Your task to perform on an android device: check storage Image 0: 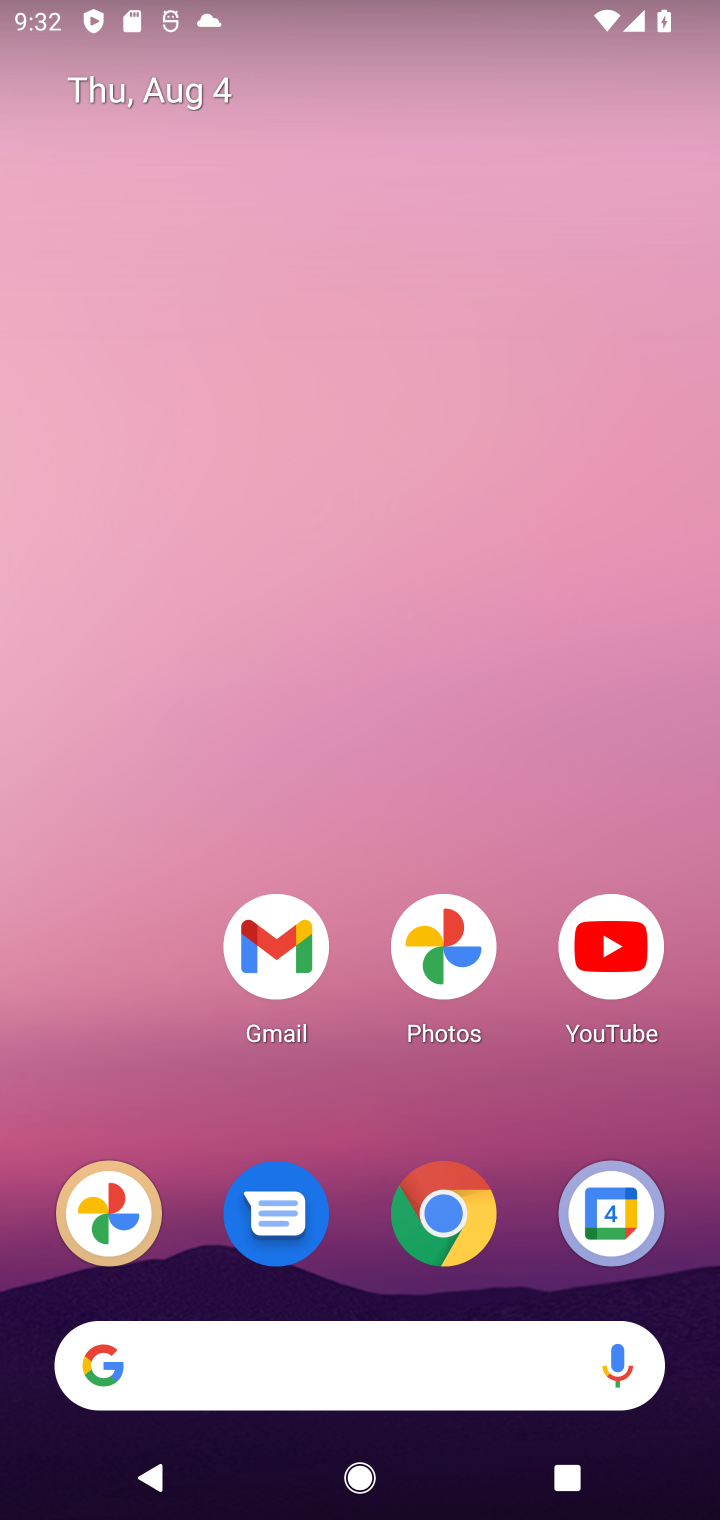
Step 0: press home button
Your task to perform on an android device: check storage Image 1: 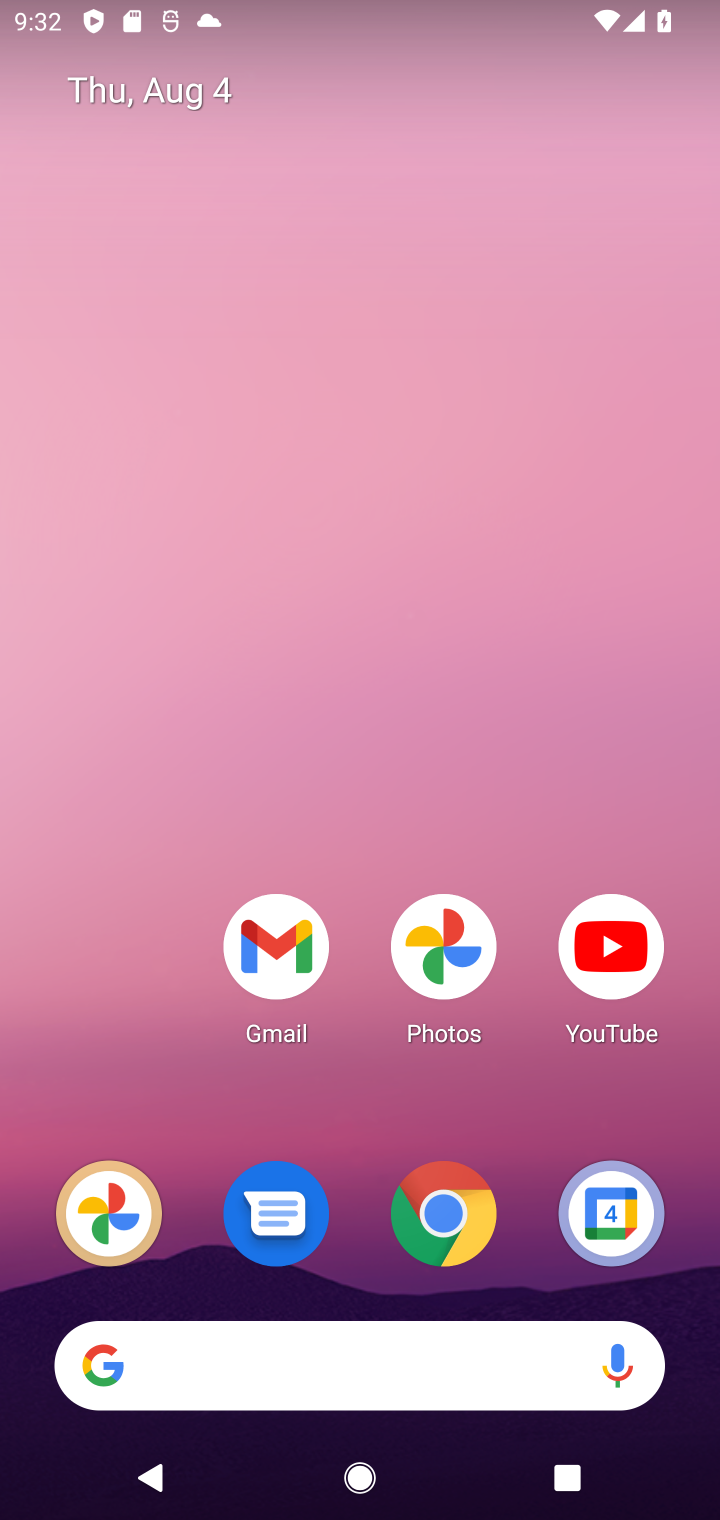
Step 1: drag from (376, 1133) to (351, 190)
Your task to perform on an android device: check storage Image 2: 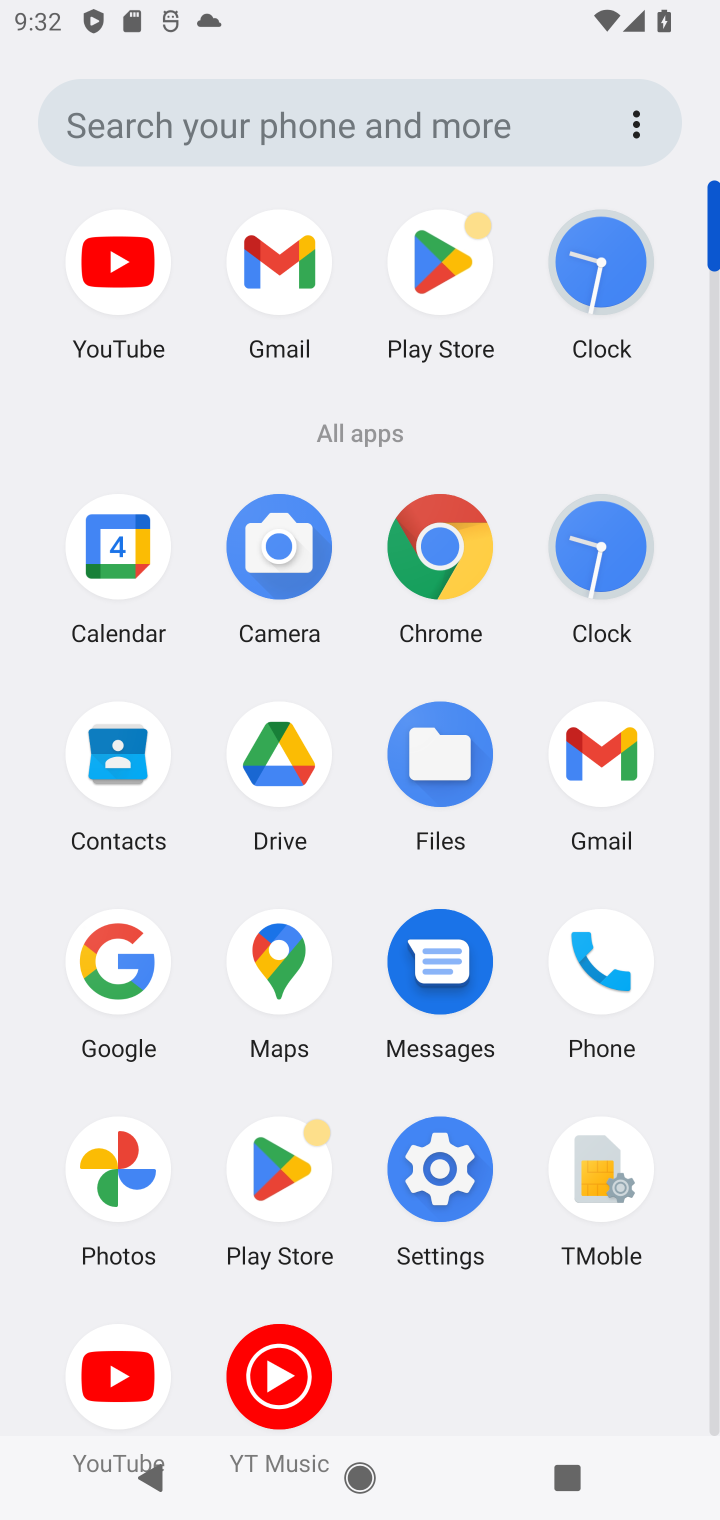
Step 2: click (439, 1163)
Your task to perform on an android device: check storage Image 3: 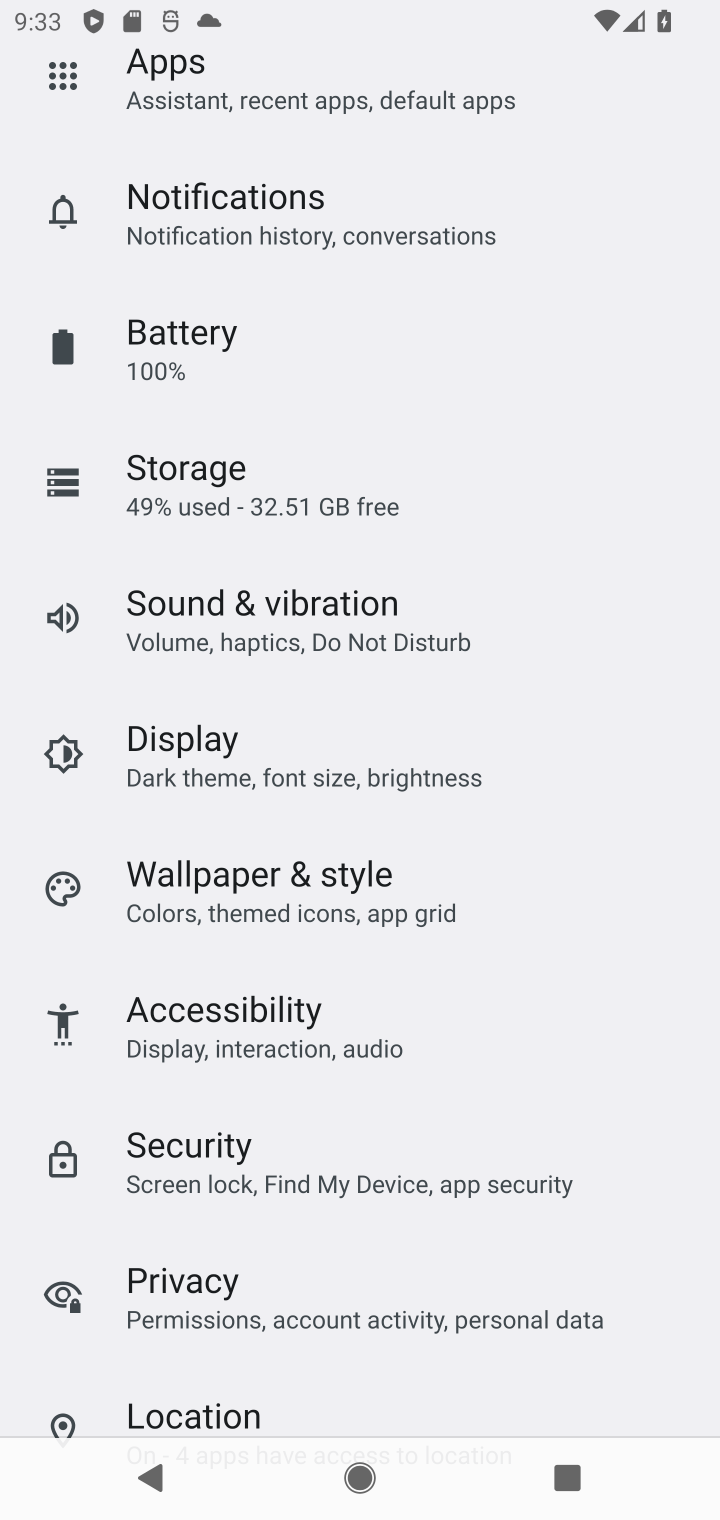
Step 3: click (202, 469)
Your task to perform on an android device: check storage Image 4: 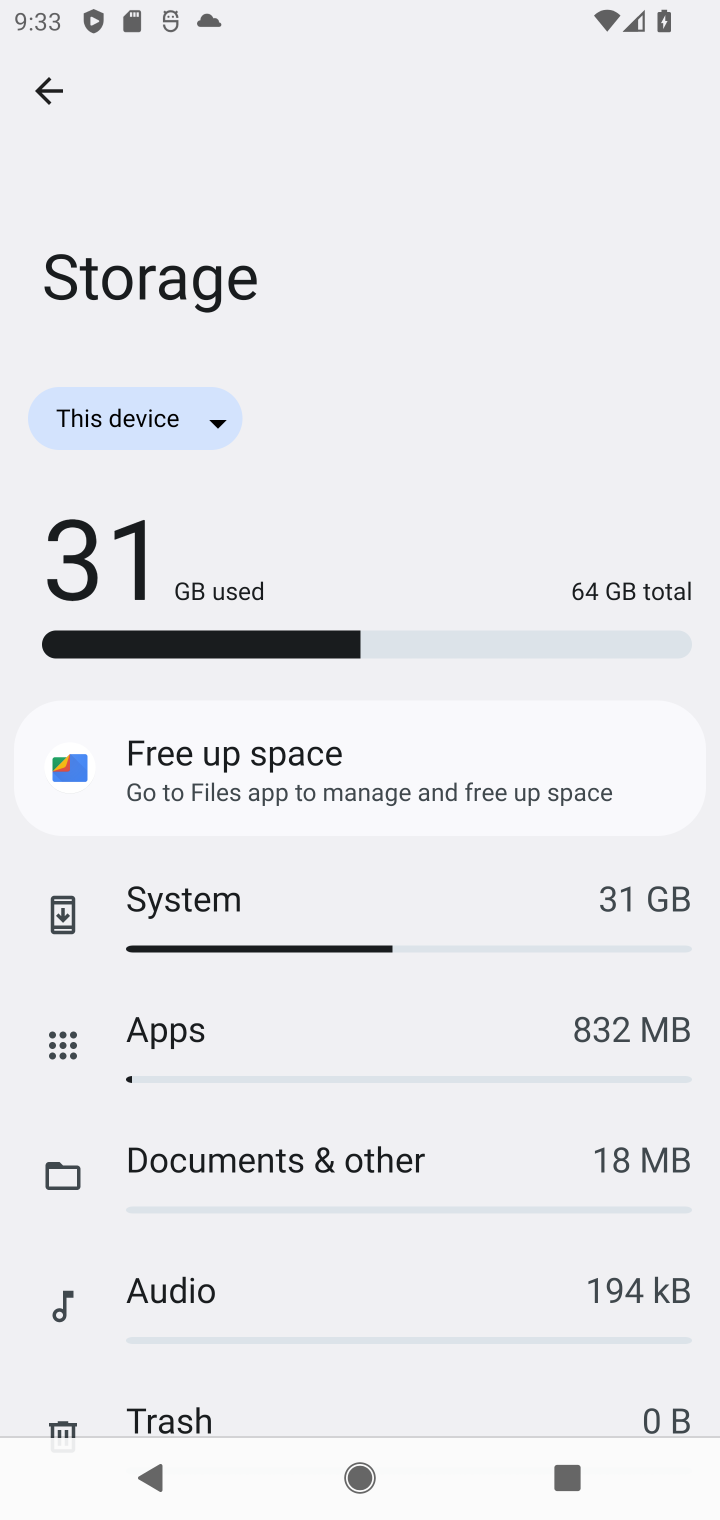
Step 4: task complete